Your task to perform on an android device: add a label to a message in the gmail app Image 0: 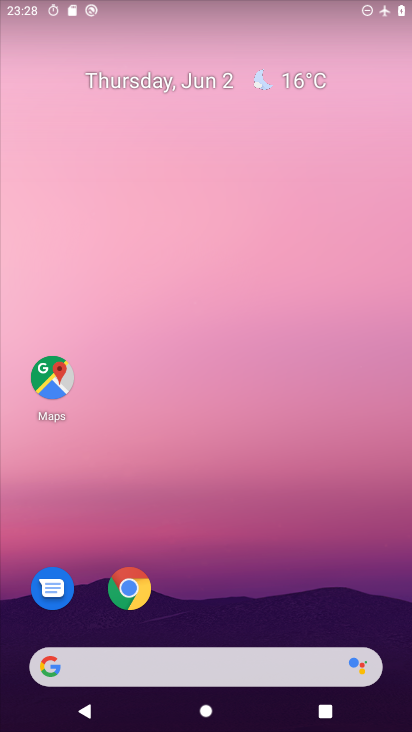
Step 0: drag from (220, 582) to (240, 98)
Your task to perform on an android device: add a label to a message in the gmail app Image 1: 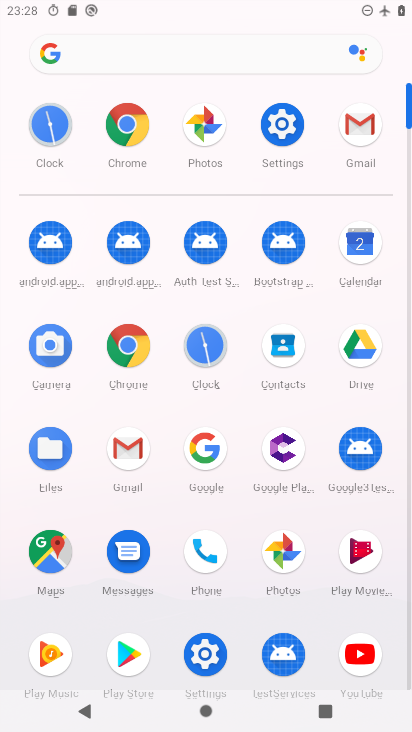
Step 1: click (360, 121)
Your task to perform on an android device: add a label to a message in the gmail app Image 2: 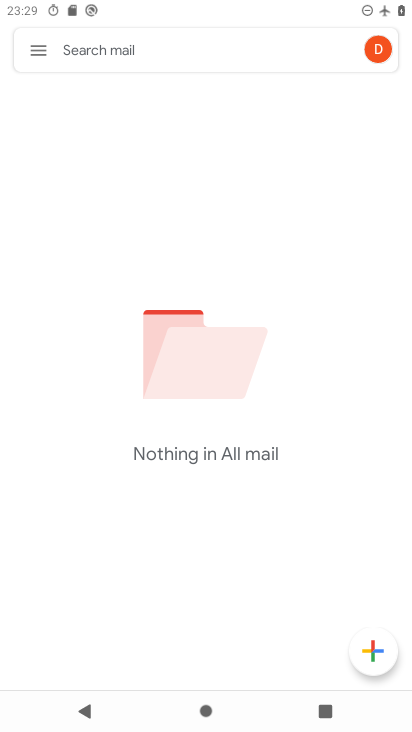
Step 2: task complete